Your task to perform on an android device: Open internet settings Image 0: 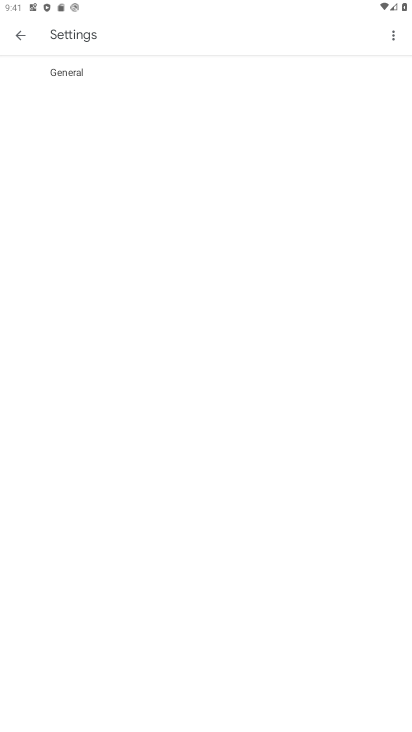
Step 0: press home button
Your task to perform on an android device: Open internet settings Image 1: 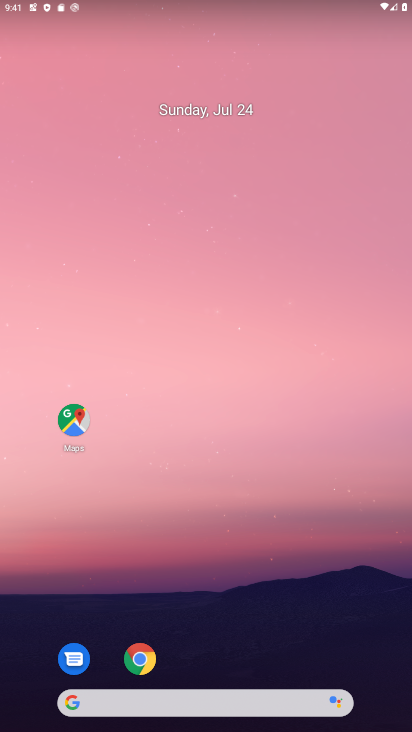
Step 1: drag from (398, 720) to (348, 168)
Your task to perform on an android device: Open internet settings Image 2: 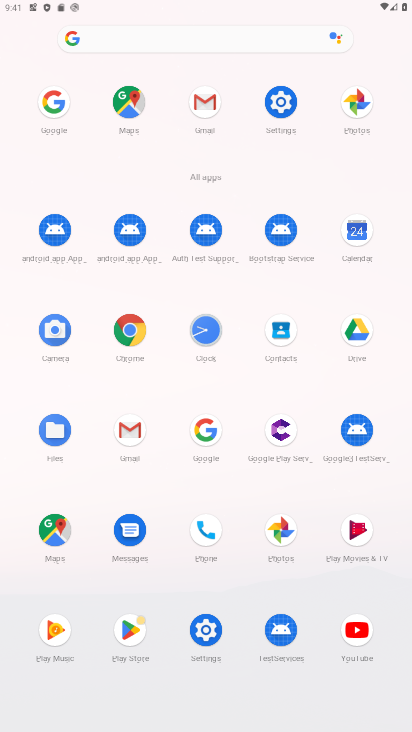
Step 2: click (276, 100)
Your task to perform on an android device: Open internet settings Image 3: 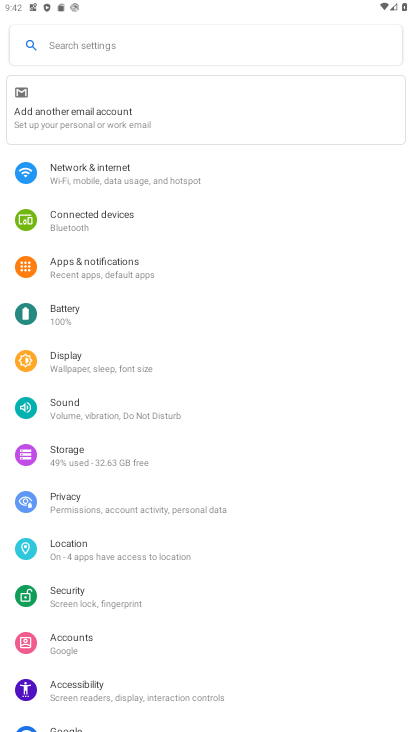
Step 3: click (81, 168)
Your task to perform on an android device: Open internet settings Image 4: 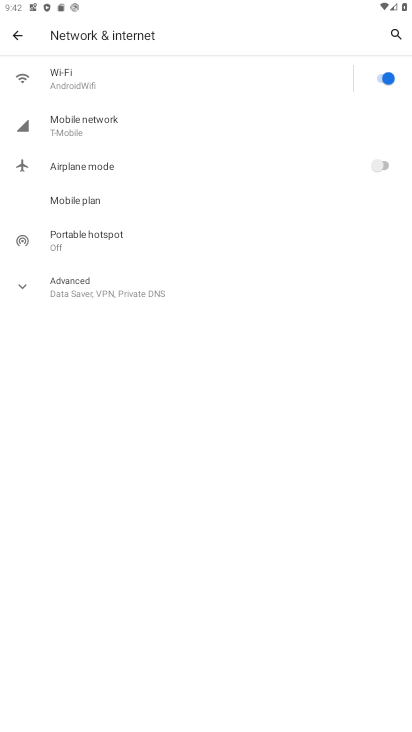
Step 4: click (16, 278)
Your task to perform on an android device: Open internet settings Image 5: 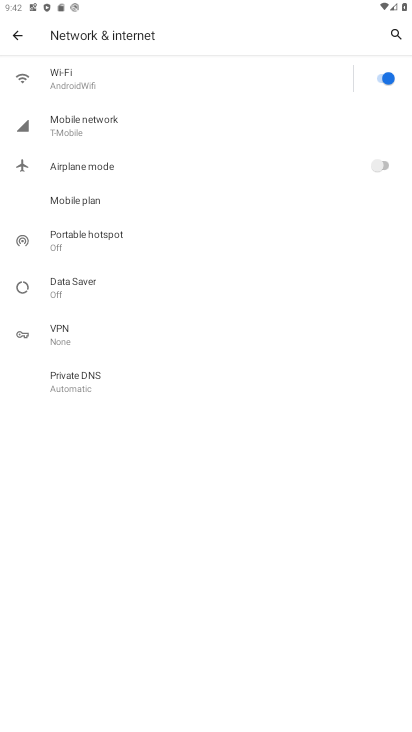
Step 5: task complete